Your task to perform on an android device: move an email to a new category in the gmail app Image 0: 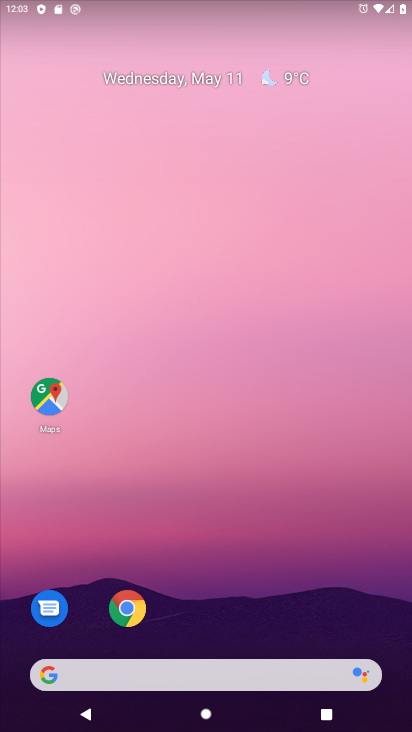
Step 0: drag from (249, 522) to (271, 249)
Your task to perform on an android device: move an email to a new category in the gmail app Image 1: 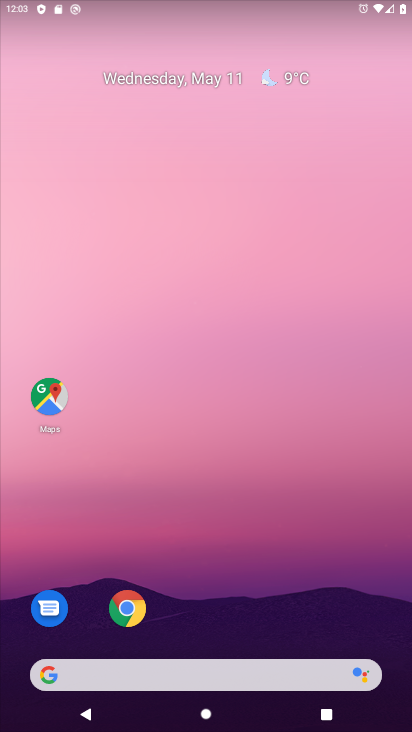
Step 1: drag from (254, 604) to (257, 215)
Your task to perform on an android device: move an email to a new category in the gmail app Image 2: 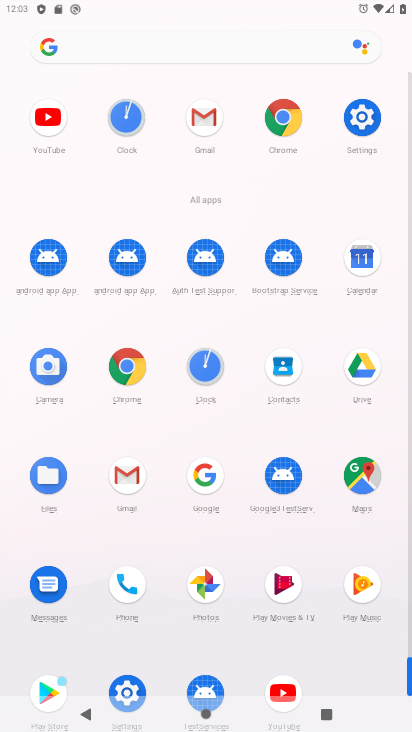
Step 2: click (128, 481)
Your task to perform on an android device: move an email to a new category in the gmail app Image 3: 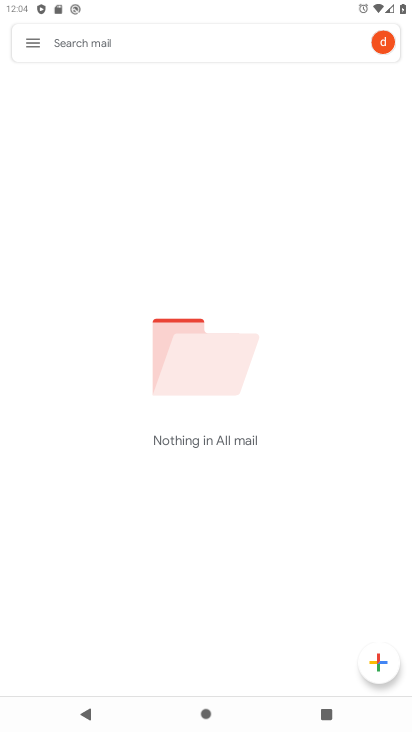
Step 3: click (31, 45)
Your task to perform on an android device: move an email to a new category in the gmail app Image 4: 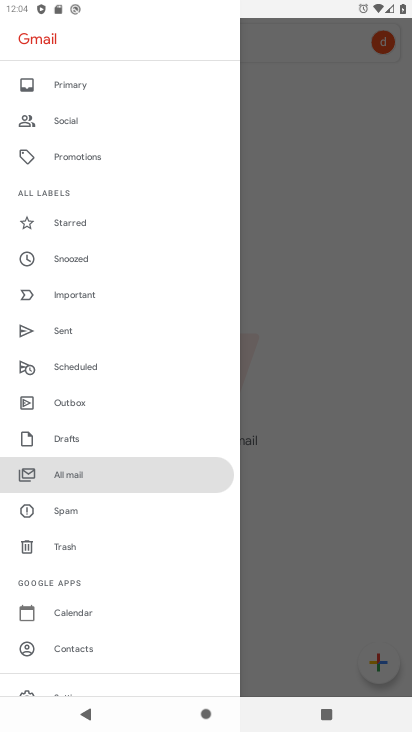
Step 4: click (73, 469)
Your task to perform on an android device: move an email to a new category in the gmail app Image 5: 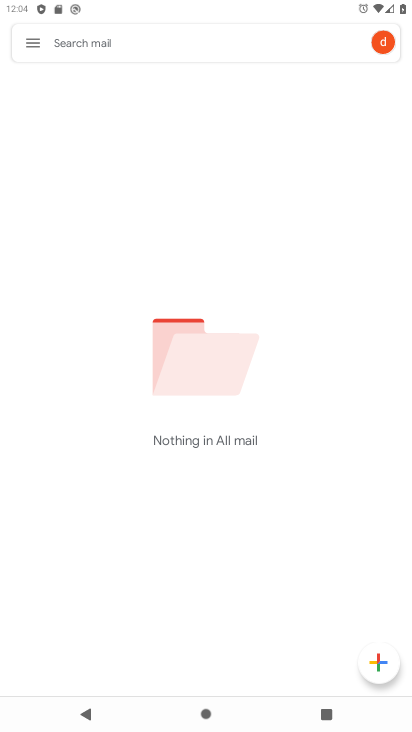
Step 5: task complete